Your task to perform on an android device: turn notification dots off Image 0: 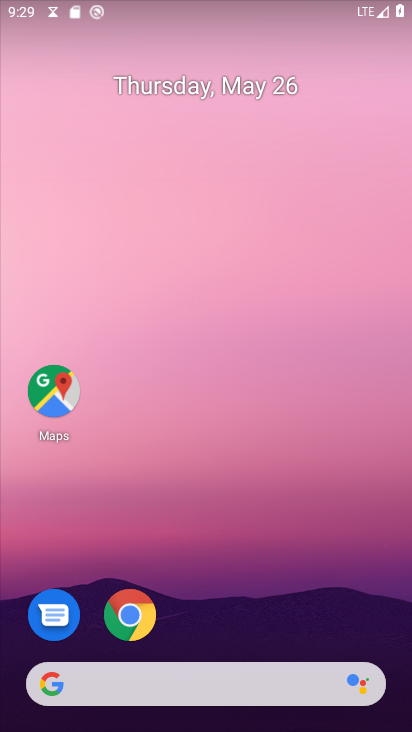
Step 0: drag from (234, 616) to (257, 295)
Your task to perform on an android device: turn notification dots off Image 1: 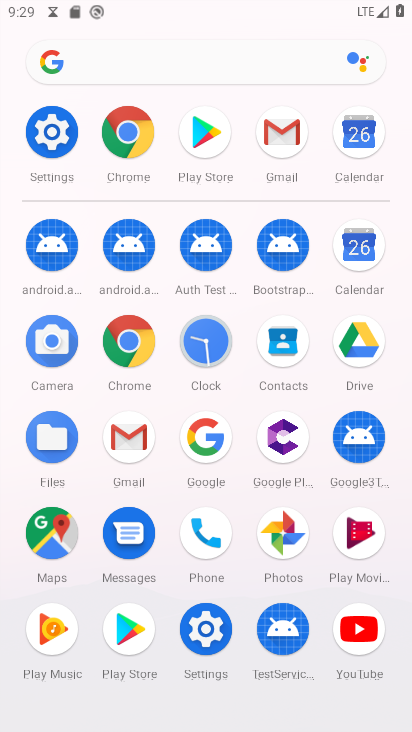
Step 1: click (42, 127)
Your task to perform on an android device: turn notification dots off Image 2: 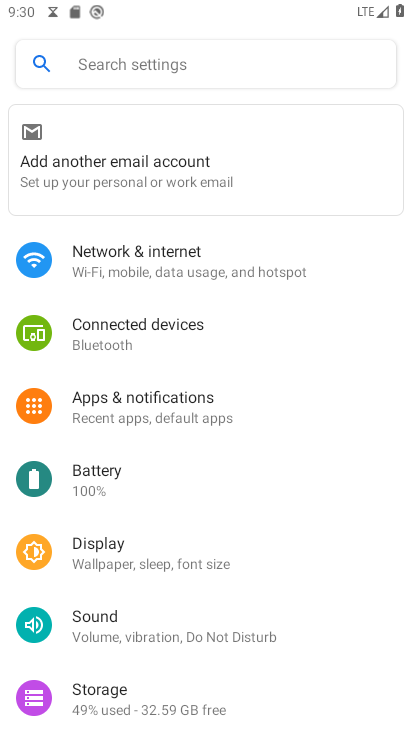
Step 2: click (231, 50)
Your task to perform on an android device: turn notification dots off Image 3: 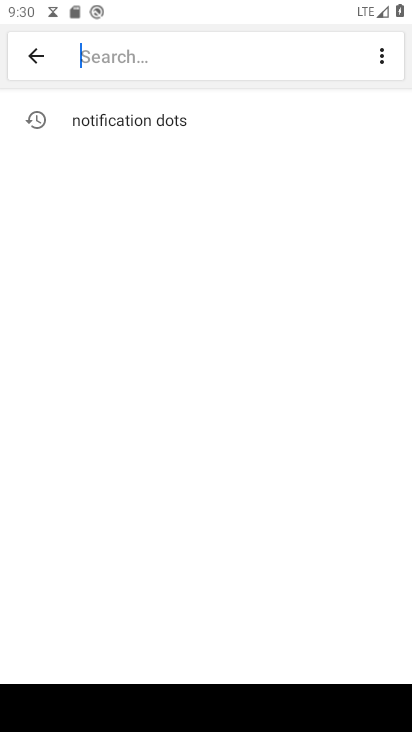
Step 3: click (154, 121)
Your task to perform on an android device: turn notification dots off Image 4: 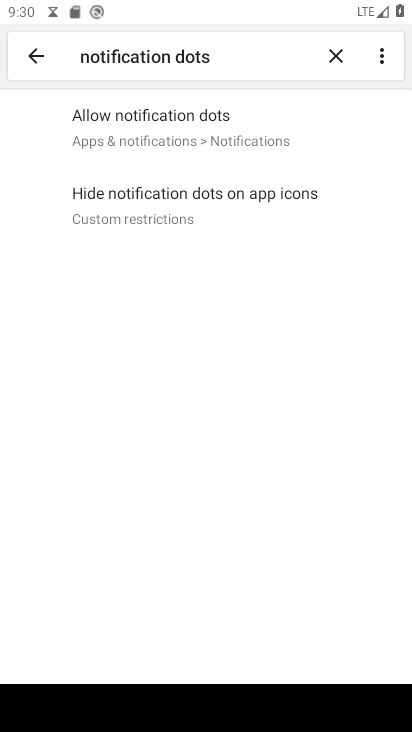
Step 4: click (138, 126)
Your task to perform on an android device: turn notification dots off Image 5: 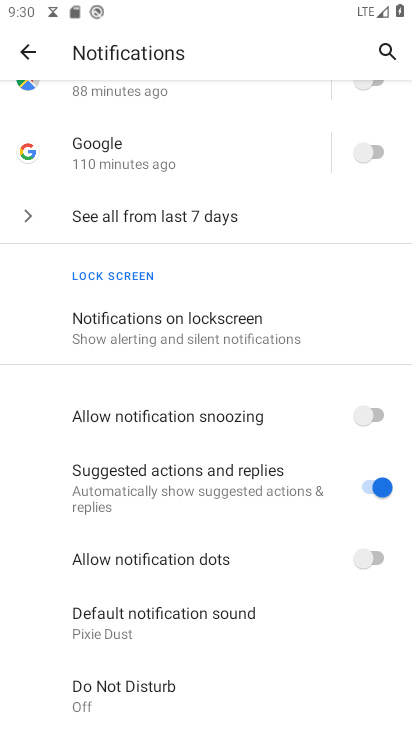
Step 5: task complete